Your task to perform on an android device: Search for seafood restaurants on Google Maps Image 0: 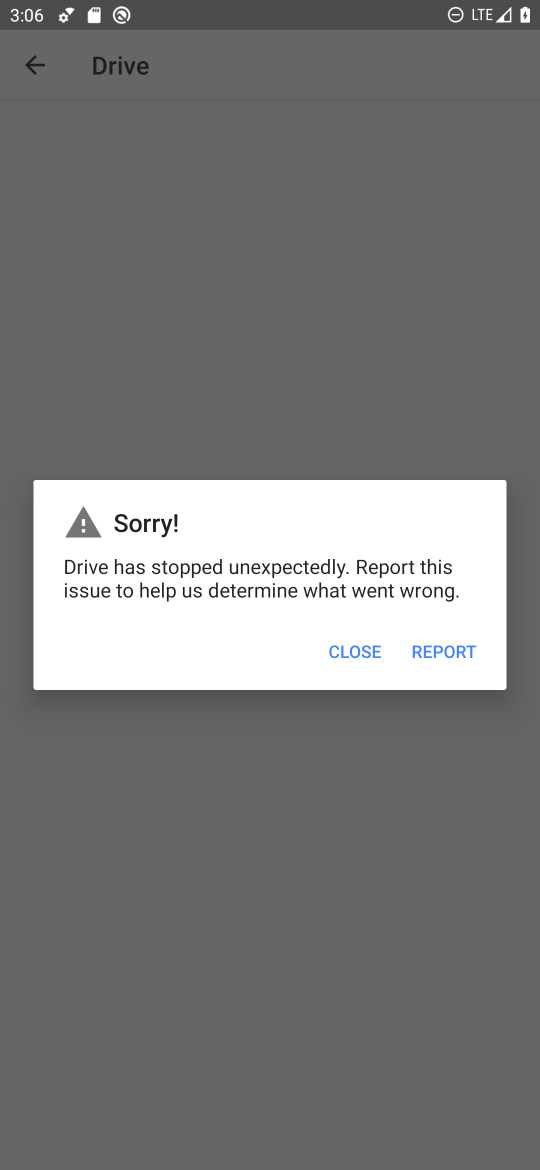
Step 0: press home button
Your task to perform on an android device: Search for seafood restaurants on Google Maps Image 1: 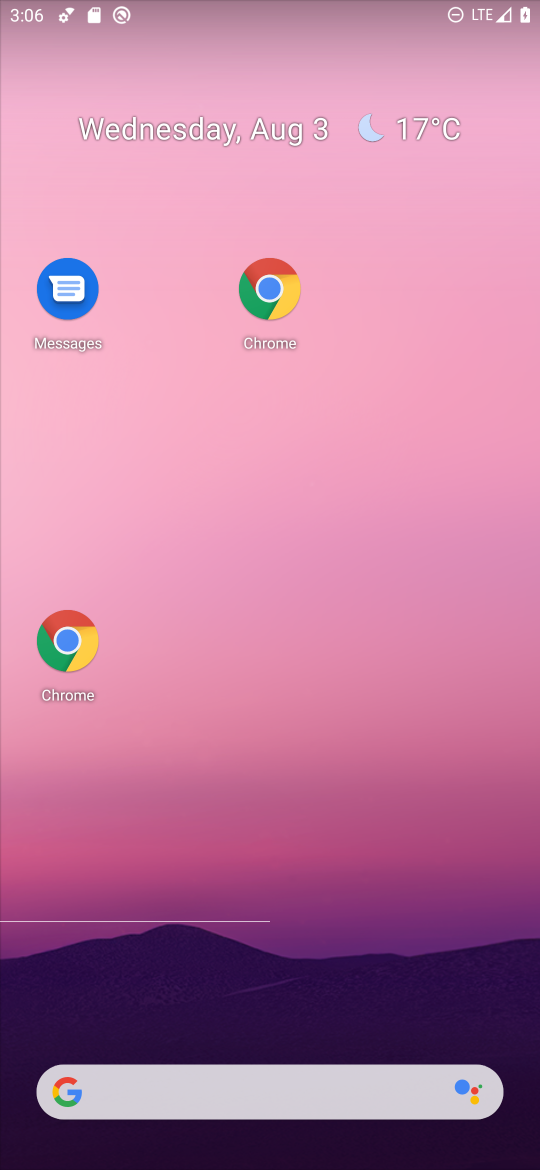
Step 1: task complete